Your task to perform on an android device: turn off data saver in the chrome app Image 0: 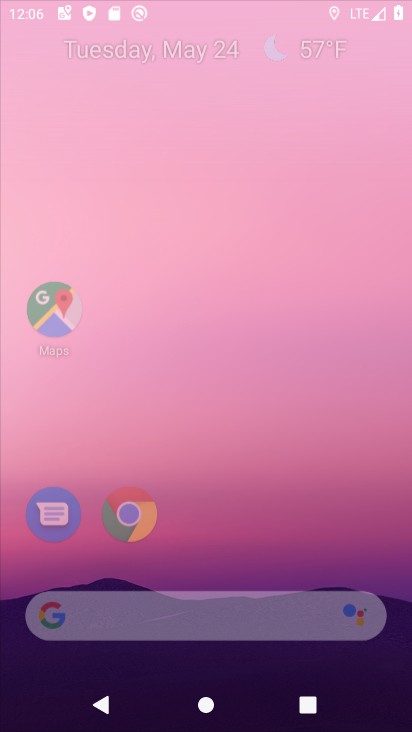
Step 0: click (294, 24)
Your task to perform on an android device: turn off data saver in the chrome app Image 1: 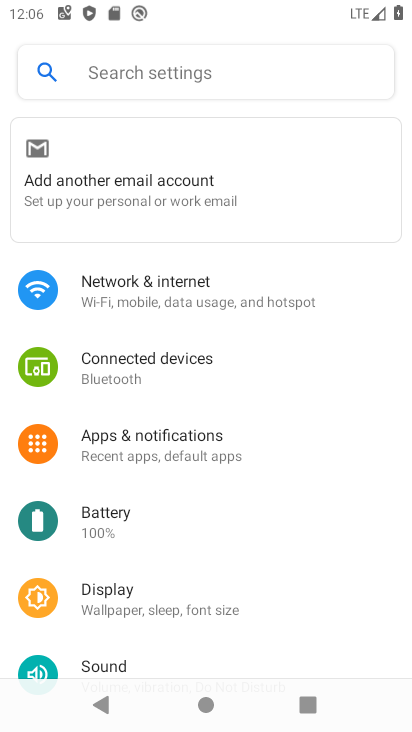
Step 1: press home button
Your task to perform on an android device: turn off data saver in the chrome app Image 2: 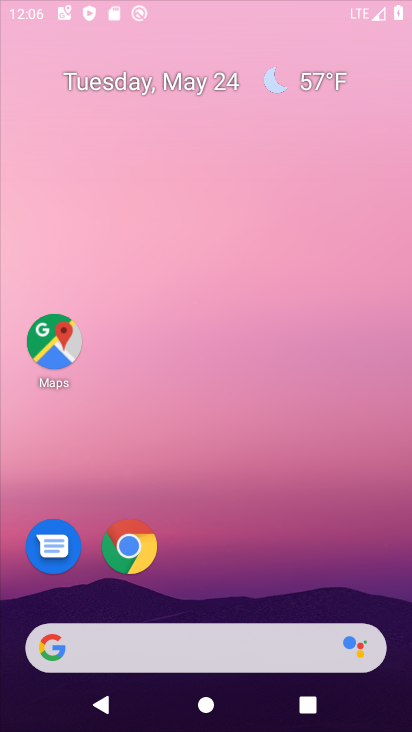
Step 2: drag from (217, 627) to (332, 4)
Your task to perform on an android device: turn off data saver in the chrome app Image 3: 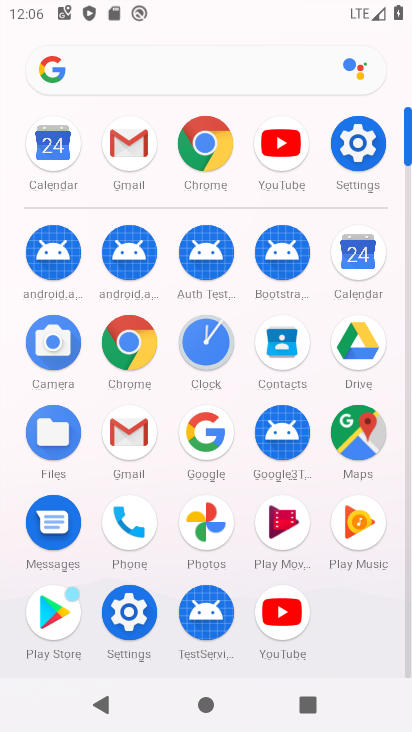
Step 3: click (132, 341)
Your task to perform on an android device: turn off data saver in the chrome app Image 4: 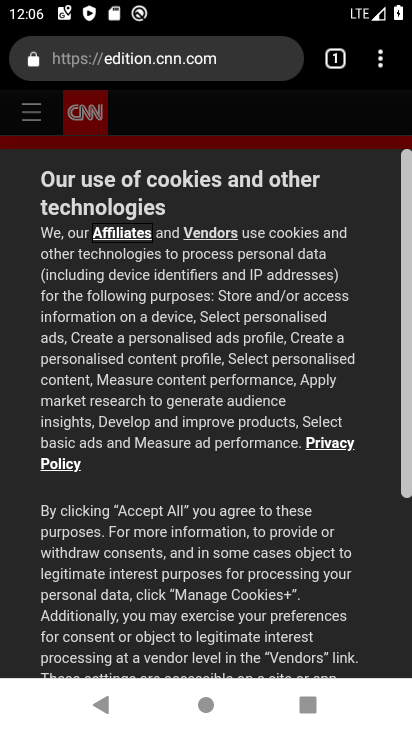
Step 4: click (386, 61)
Your task to perform on an android device: turn off data saver in the chrome app Image 5: 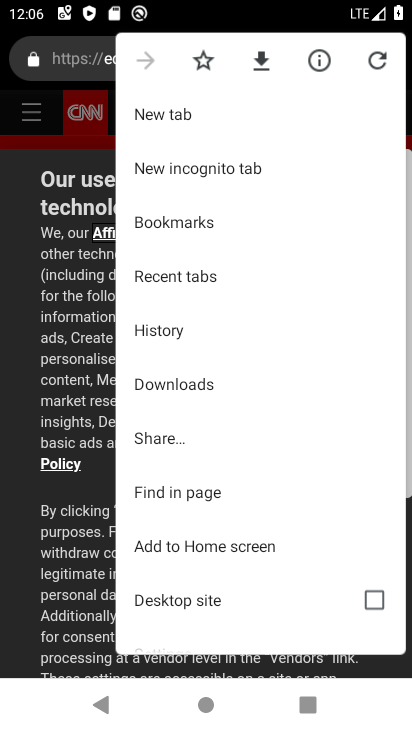
Step 5: drag from (183, 580) to (287, 145)
Your task to perform on an android device: turn off data saver in the chrome app Image 6: 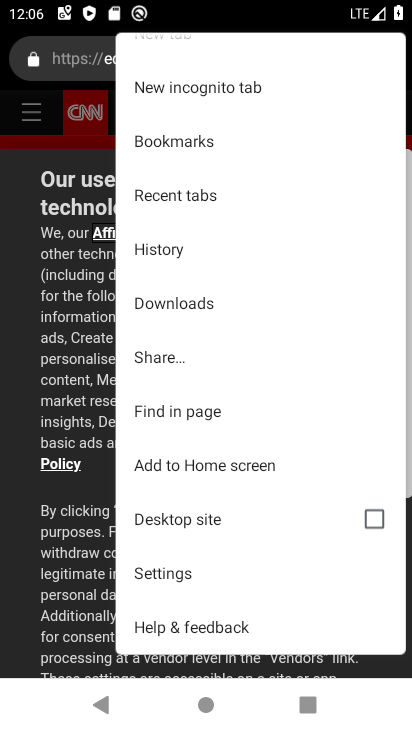
Step 6: click (184, 566)
Your task to perform on an android device: turn off data saver in the chrome app Image 7: 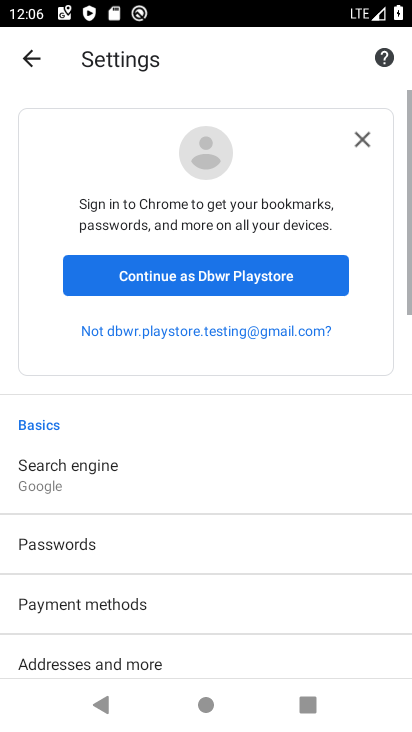
Step 7: drag from (189, 511) to (331, 42)
Your task to perform on an android device: turn off data saver in the chrome app Image 8: 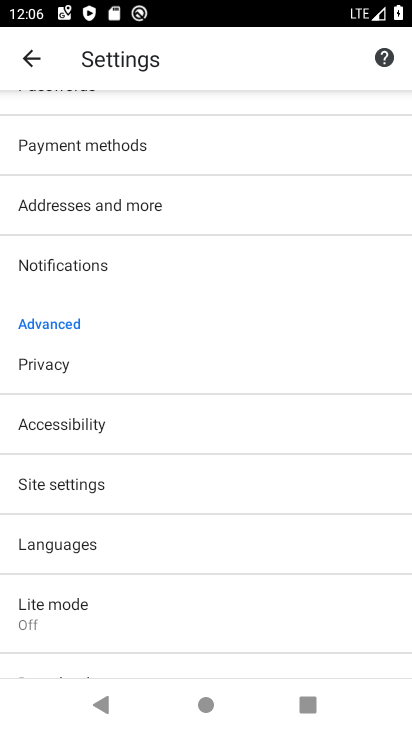
Step 8: drag from (164, 539) to (235, 251)
Your task to perform on an android device: turn off data saver in the chrome app Image 9: 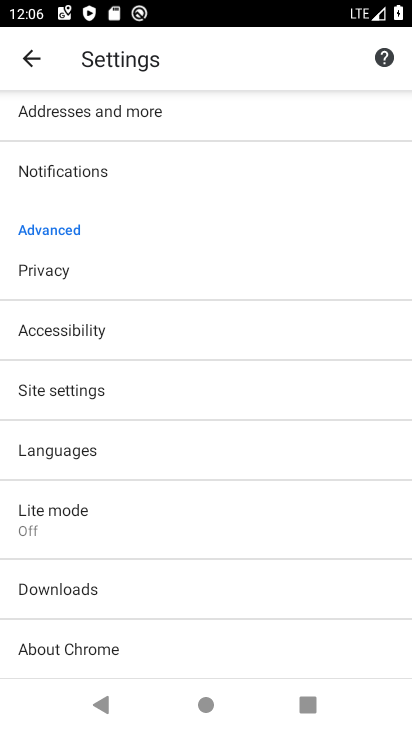
Step 9: click (128, 508)
Your task to perform on an android device: turn off data saver in the chrome app Image 10: 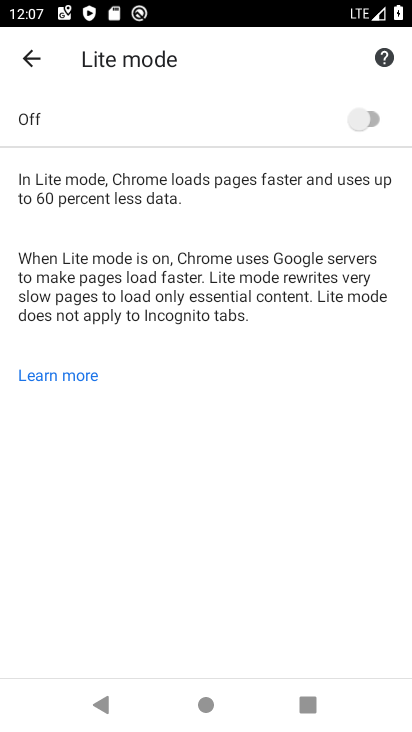
Step 10: task complete